Your task to perform on an android device: Open Google Chrome Image 0: 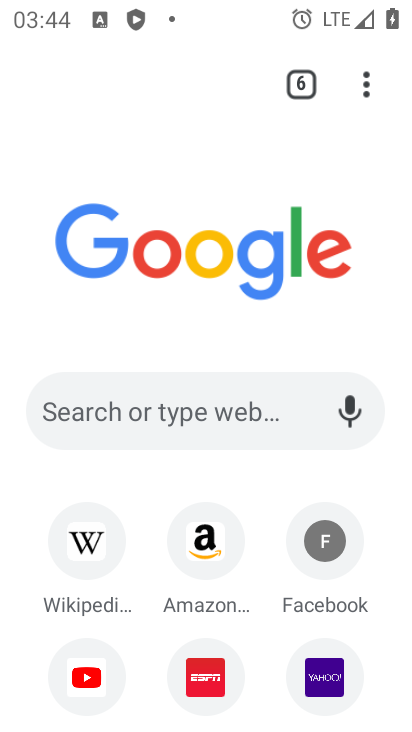
Step 0: press home button
Your task to perform on an android device: Open Google Chrome Image 1: 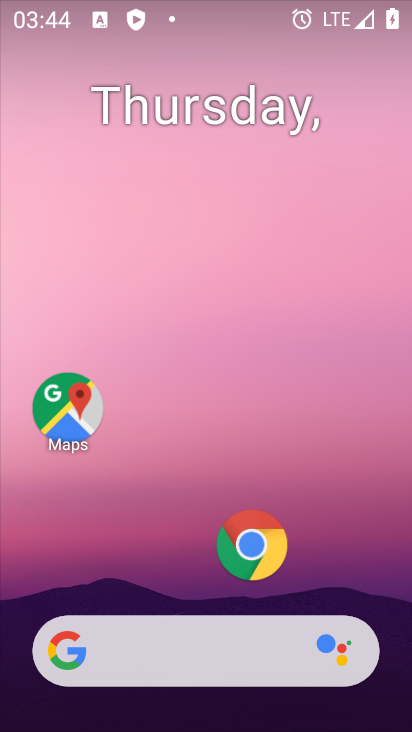
Step 1: drag from (296, 621) to (357, 20)
Your task to perform on an android device: Open Google Chrome Image 2: 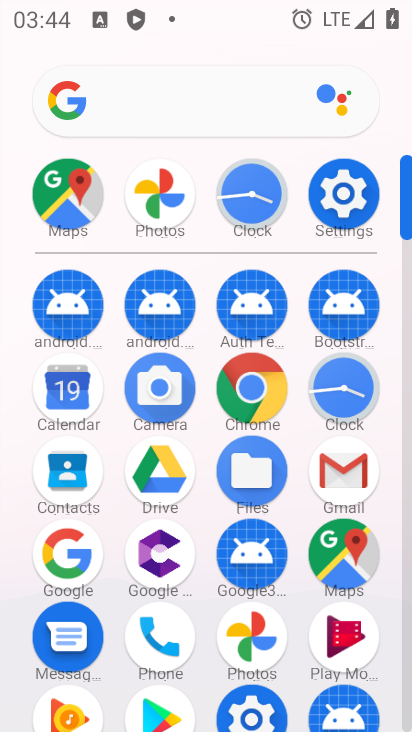
Step 2: click (256, 385)
Your task to perform on an android device: Open Google Chrome Image 3: 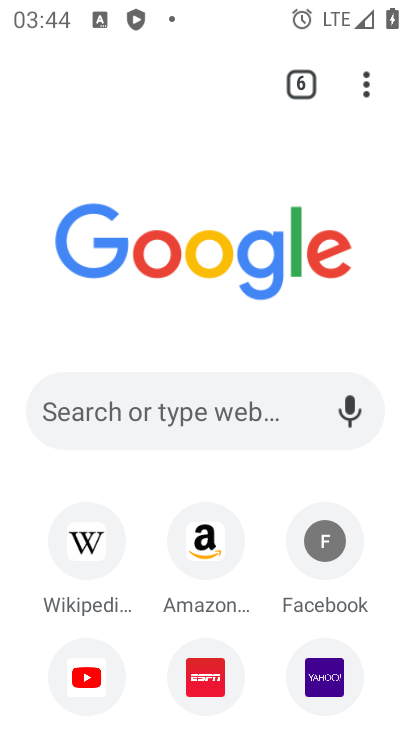
Step 3: task complete